Your task to perform on an android device: turn pop-ups on in chrome Image 0: 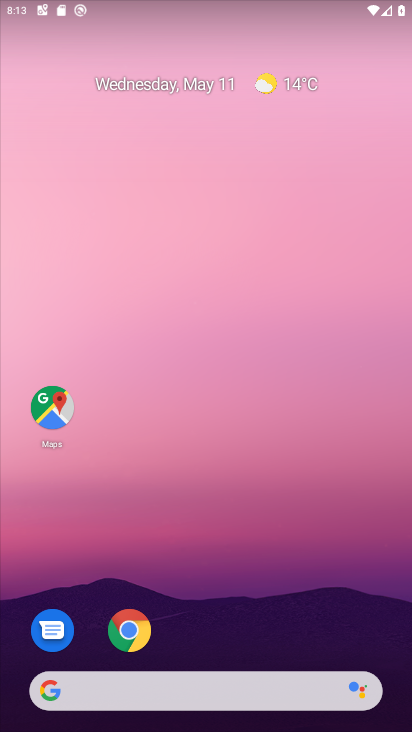
Step 0: click (121, 633)
Your task to perform on an android device: turn pop-ups on in chrome Image 1: 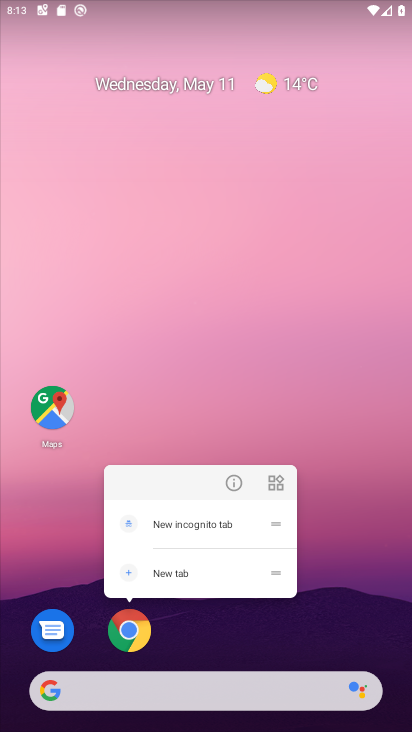
Step 1: click (123, 631)
Your task to perform on an android device: turn pop-ups on in chrome Image 2: 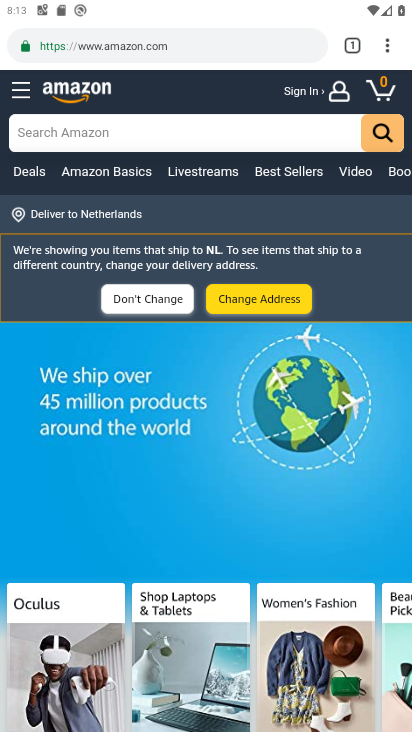
Step 2: click (390, 49)
Your task to perform on an android device: turn pop-ups on in chrome Image 3: 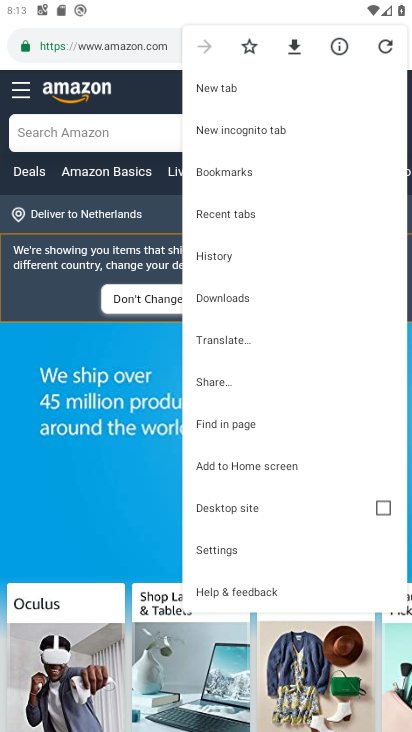
Step 3: click (215, 547)
Your task to perform on an android device: turn pop-ups on in chrome Image 4: 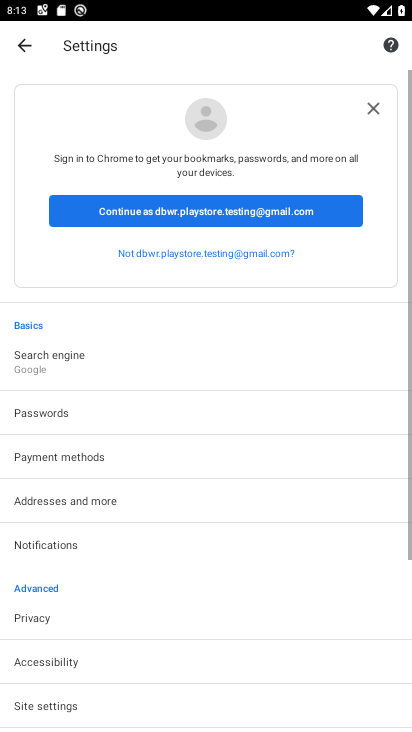
Step 4: drag from (18, 683) to (129, 235)
Your task to perform on an android device: turn pop-ups on in chrome Image 5: 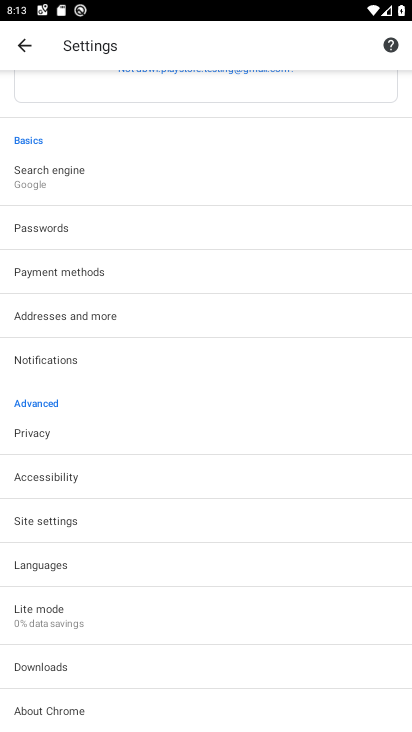
Step 5: click (60, 517)
Your task to perform on an android device: turn pop-ups on in chrome Image 6: 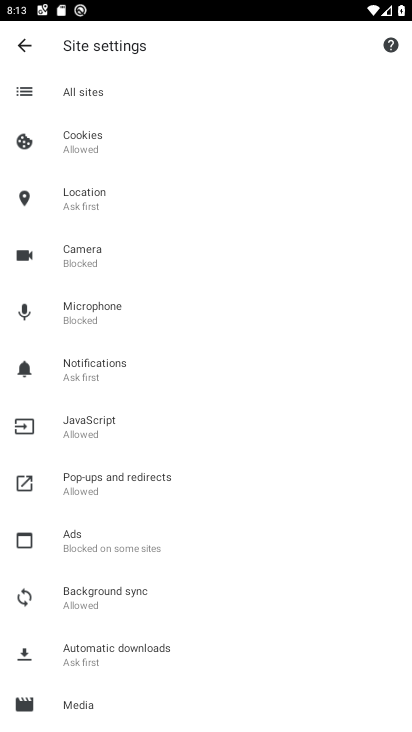
Step 6: click (114, 478)
Your task to perform on an android device: turn pop-ups on in chrome Image 7: 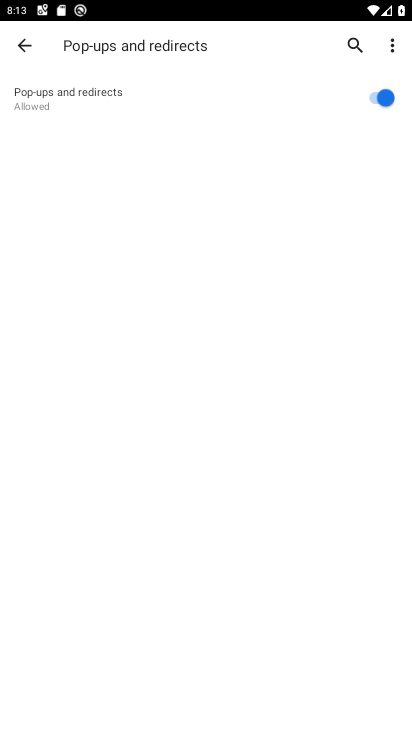
Step 7: task complete